Your task to perform on an android device: turn off wifi Image 0: 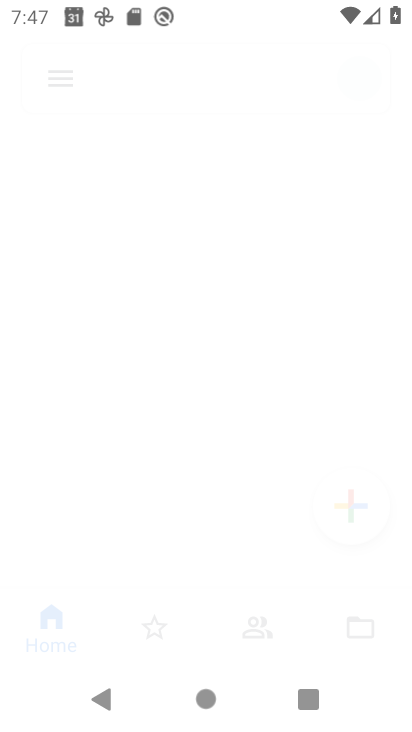
Step 0: drag from (8, 506) to (244, 105)
Your task to perform on an android device: turn off wifi Image 1: 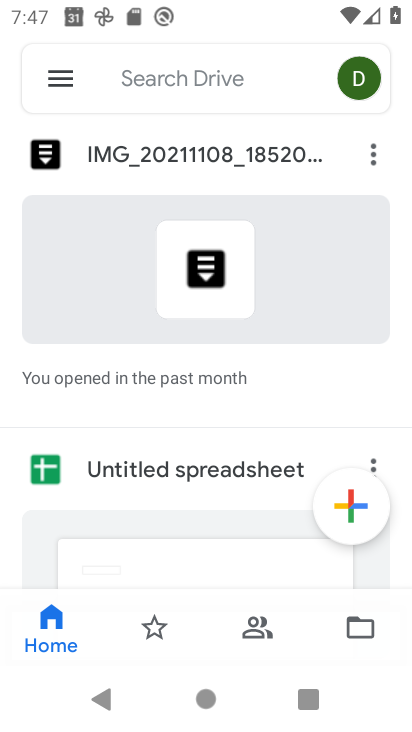
Step 1: press home button
Your task to perform on an android device: turn off wifi Image 2: 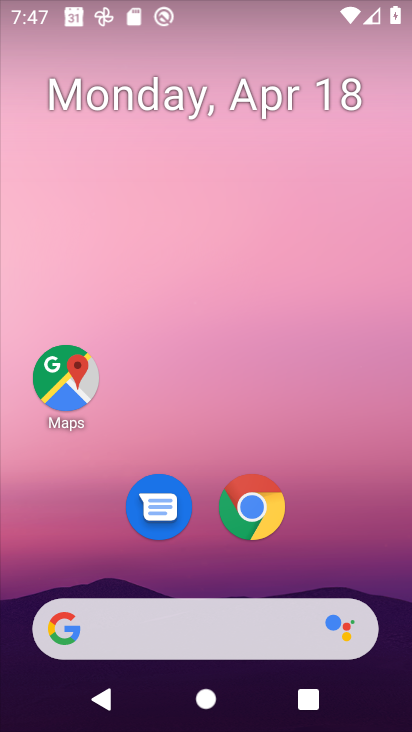
Step 2: drag from (11, 496) to (257, 25)
Your task to perform on an android device: turn off wifi Image 3: 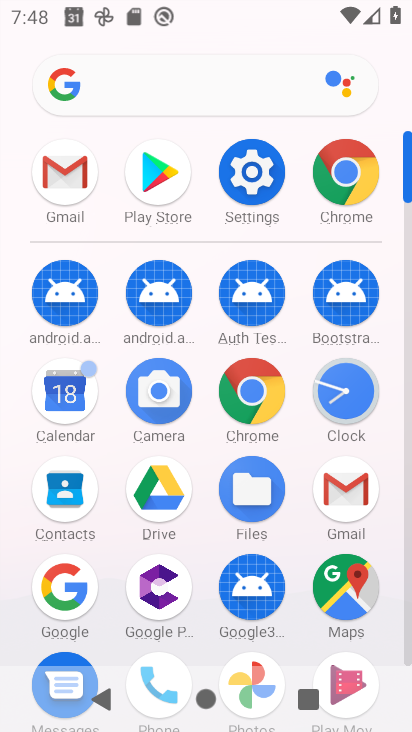
Step 3: drag from (197, 2) to (203, 380)
Your task to perform on an android device: turn off wifi Image 4: 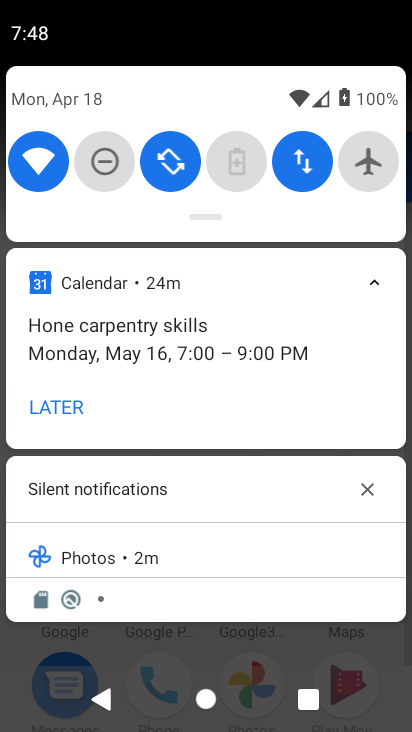
Step 4: click (30, 164)
Your task to perform on an android device: turn off wifi Image 5: 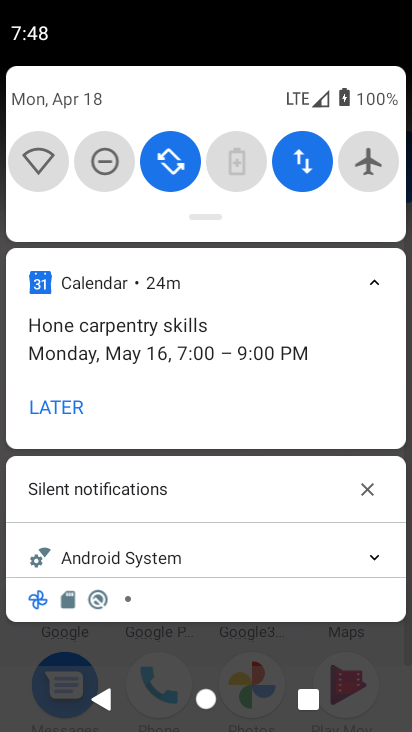
Step 5: task complete